Your task to perform on an android device: turn off picture-in-picture Image 0: 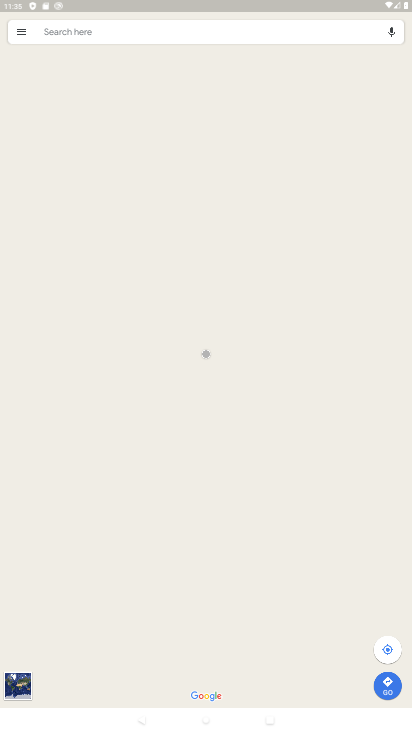
Step 0: press home button
Your task to perform on an android device: turn off picture-in-picture Image 1: 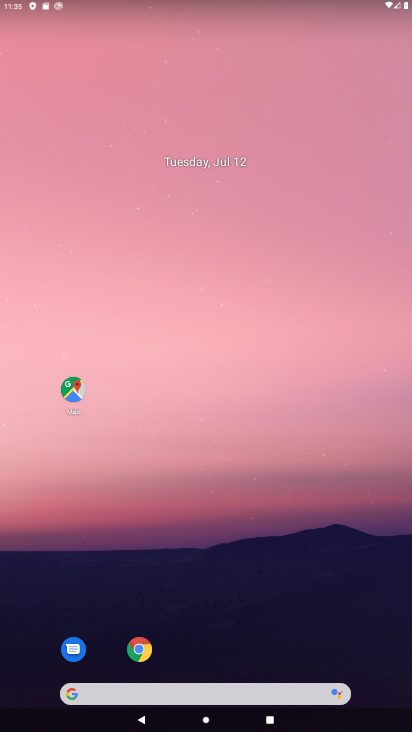
Step 1: click (136, 652)
Your task to perform on an android device: turn off picture-in-picture Image 2: 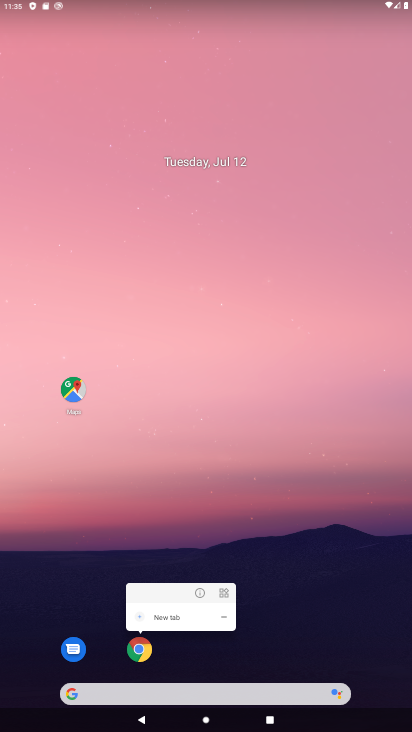
Step 2: click (204, 589)
Your task to perform on an android device: turn off picture-in-picture Image 3: 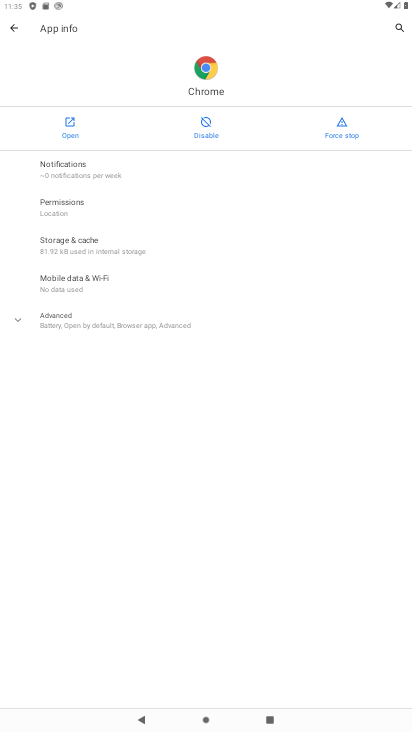
Step 3: click (214, 321)
Your task to perform on an android device: turn off picture-in-picture Image 4: 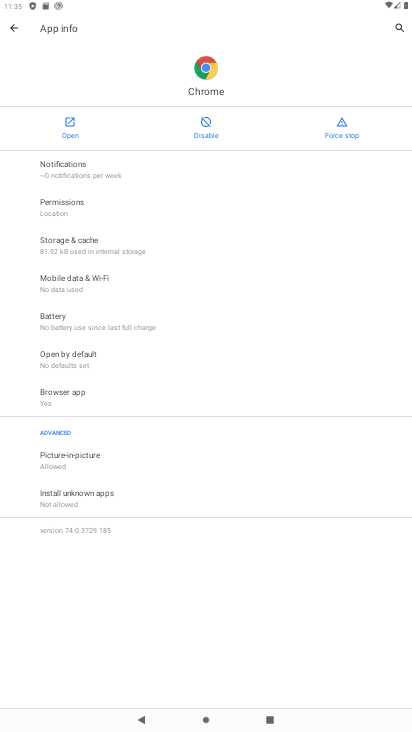
Step 4: click (123, 459)
Your task to perform on an android device: turn off picture-in-picture Image 5: 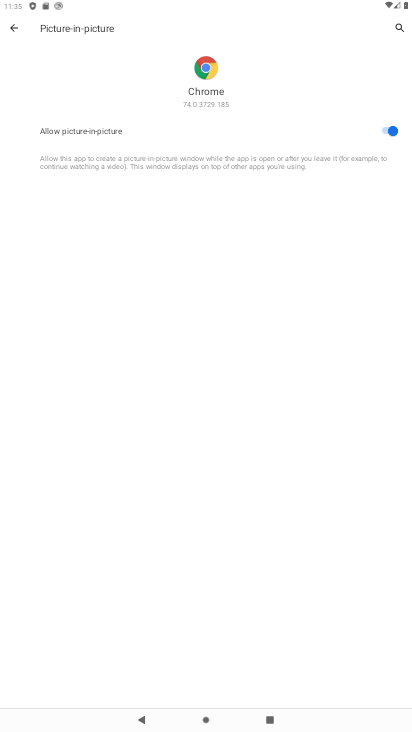
Step 5: click (391, 131)
Your task to perform on an android device: turn off picture-in-picture Image 6: 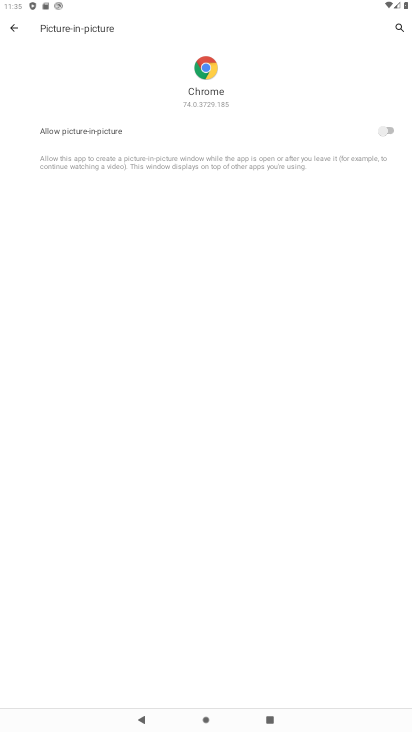
Step 6: task complete